Your task to perform on an android device: Find coffee shops on Maps Image 0: 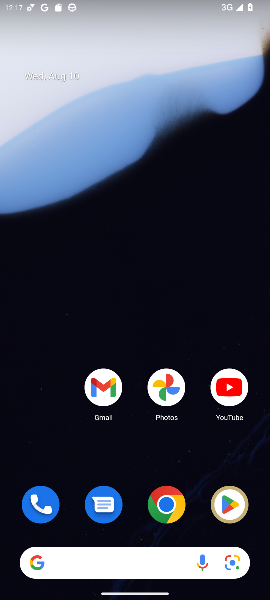
Step 0: press home button
Your task to perform on an android device: Find coffee shops on Maps Image 1: 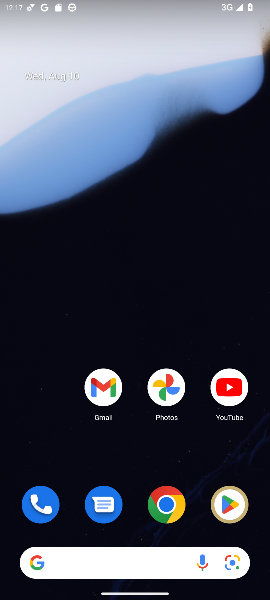
Step 1: drag from (141, 458) to (181, 113)
Your task to perform on an android device: Find coffee shops on Maps Image 2: 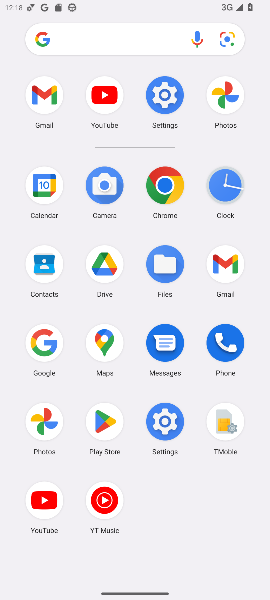
Step 2: click (100, 356)
Your task to perform on an android device: Find coffee shops on Maps Image 3: 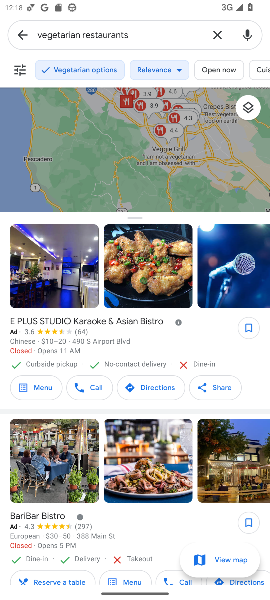
Step 3: press back button
Your task to perform on an android device: Find coffee shops on Maps Image 4: 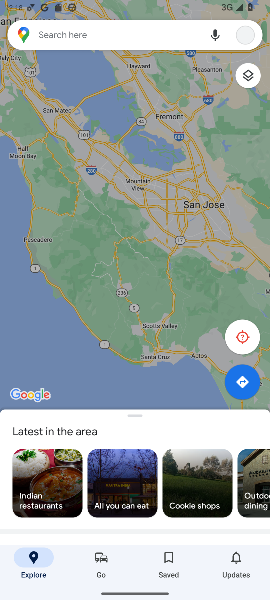
Step 4: click (61, 36)
Your task to perform on an android device: Find coffee shops on Maps Image 5: 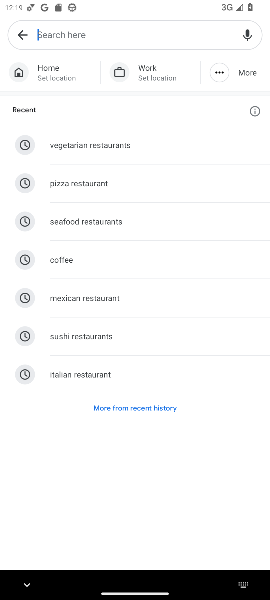
Step 5: type " coffee shops "
Your task to perform on an android device: Find coffee shops on Maps Image 6: 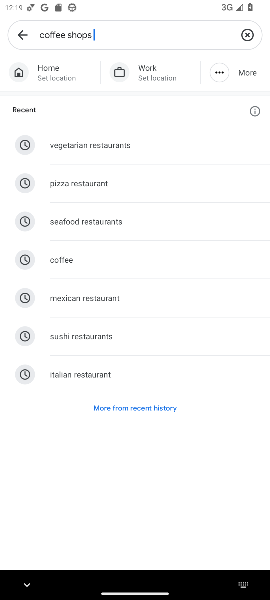
Step 6: press enter
Your task to perform on an android device: Find coffee shops on Maps Image 7: 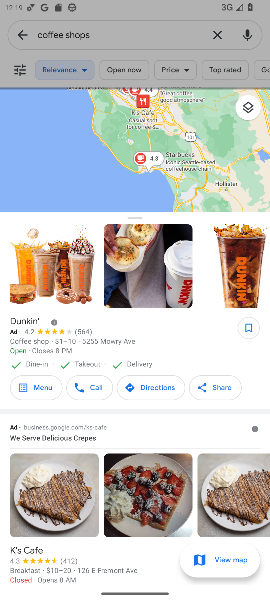
Step 7: task complete